Your task to perform on an android device: uninstall "Google Pay: Save, Pay, Manage" Image 0: 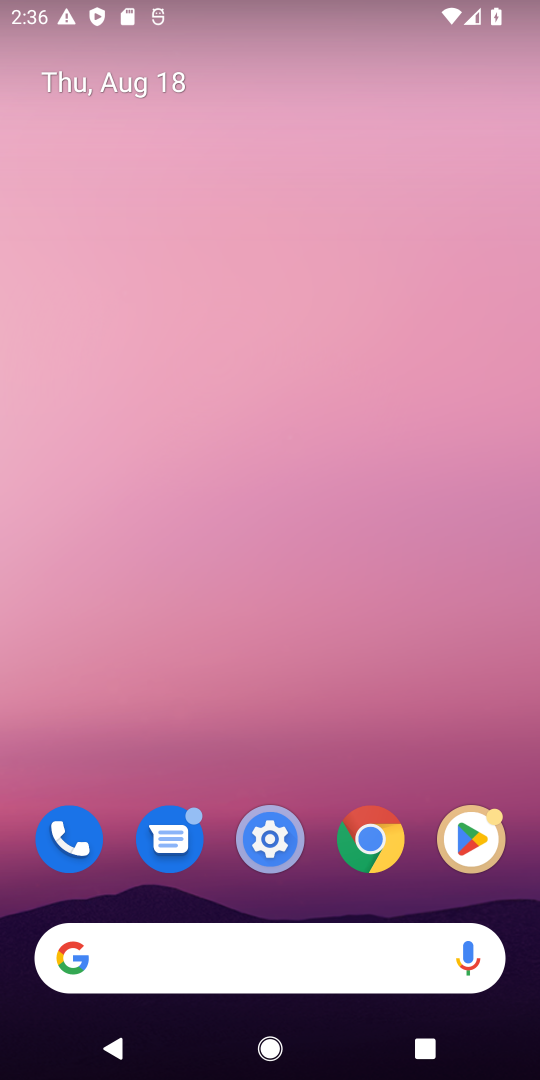
Step 0: click (452, 841)
Your task to perform on an android device: uninstall "Google Pay: Save, Pay, Manage" Image 1: 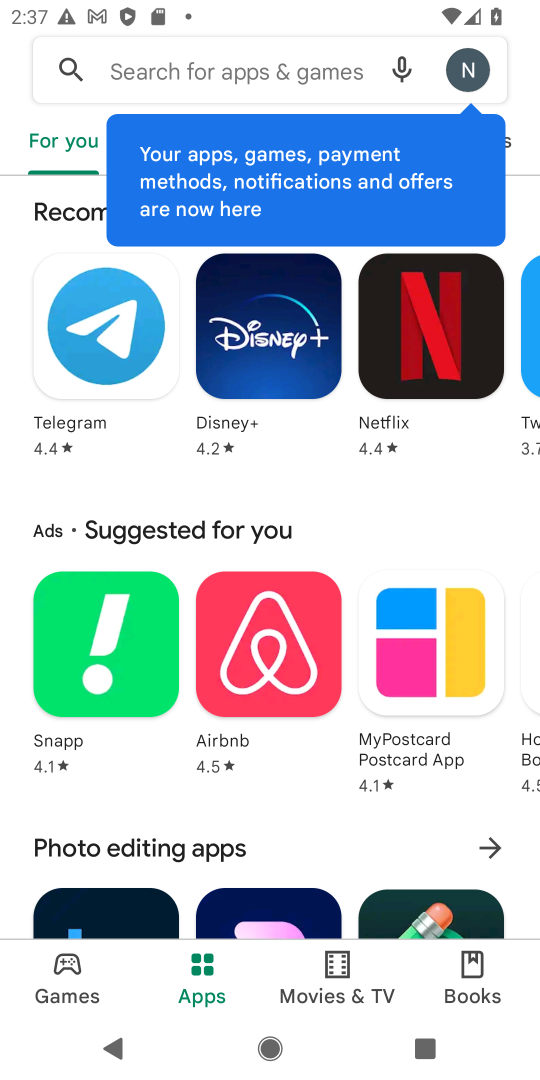
Step 1: click (218, 81)
Your task to perform on an android device: uninstall "Google Pay: Save, Pay, Manage" Image 2: 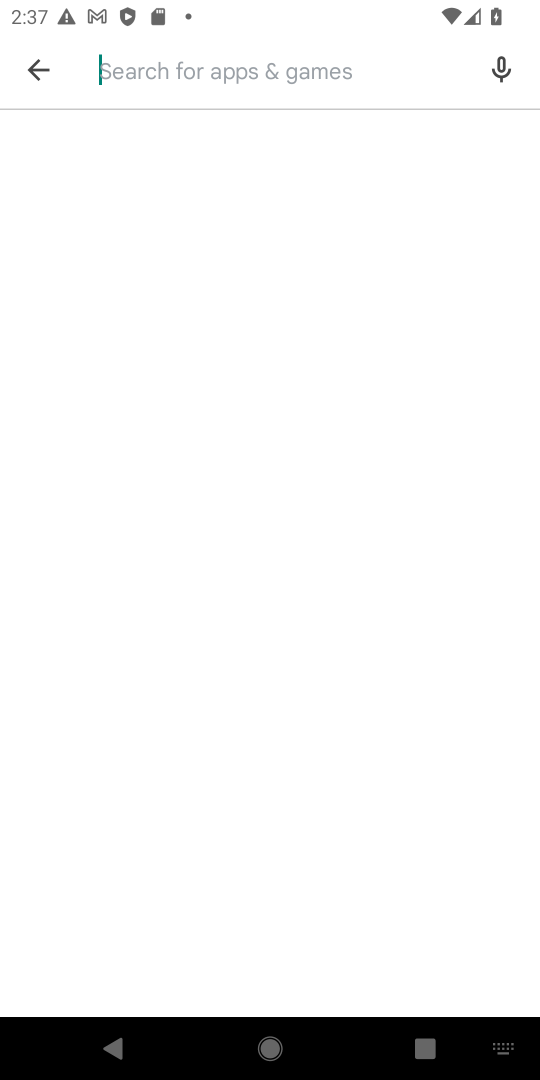
Step 2: type "Google Pay: Save, Pay, Manage"
Your task to perform on an android device: uninstall "Google Pay: Save, Pay, Manage" Image 3: 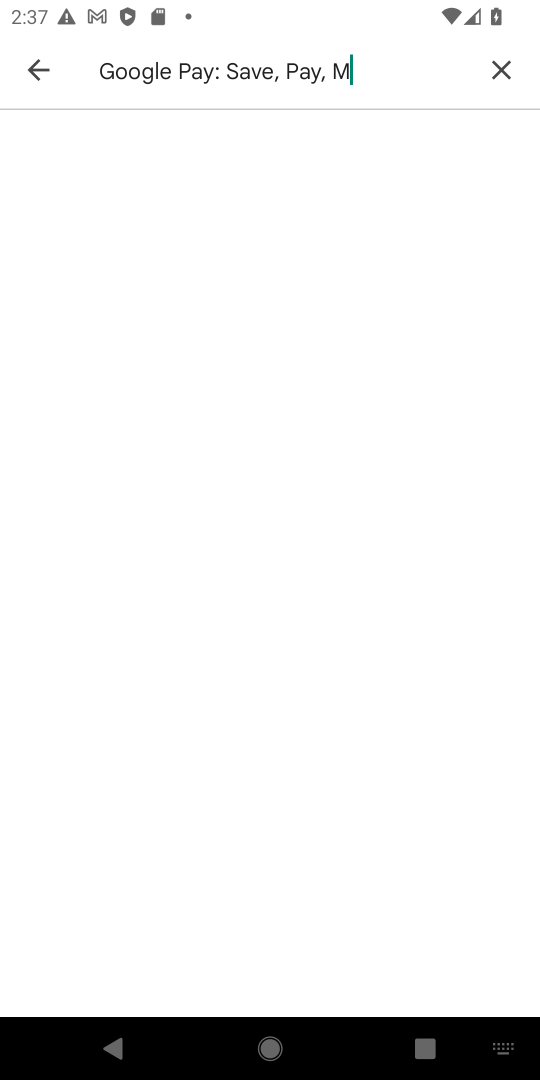
Step 3: type ""
Your task to perform on an android device: uninstall "Google Pay: Save, Pay, Manage" Image 4: 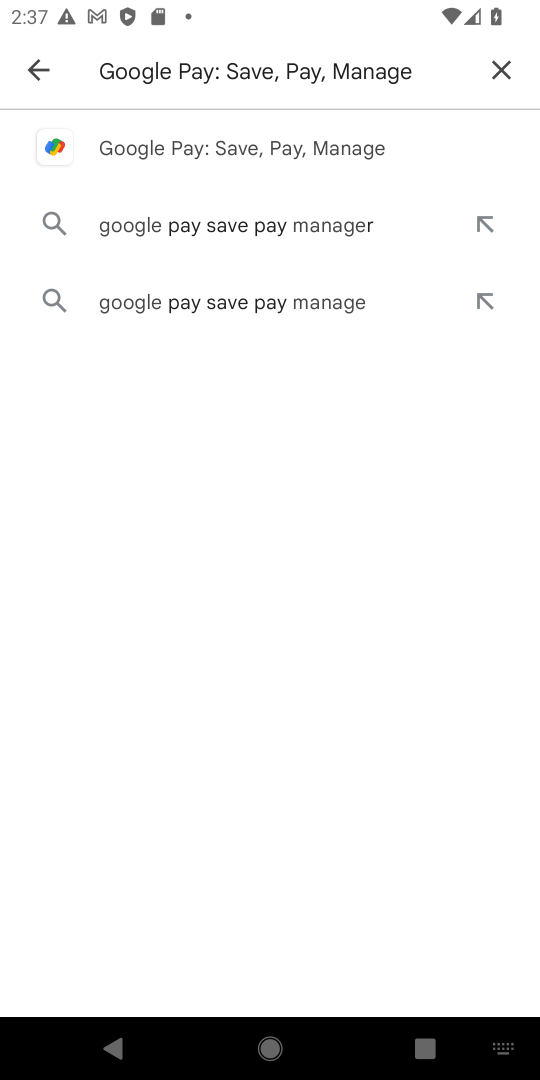
Step 4: click (132, 149)
Your task to perform on an android device: uninstall "Google Pay: Save, Pay, Manage" Image 5: 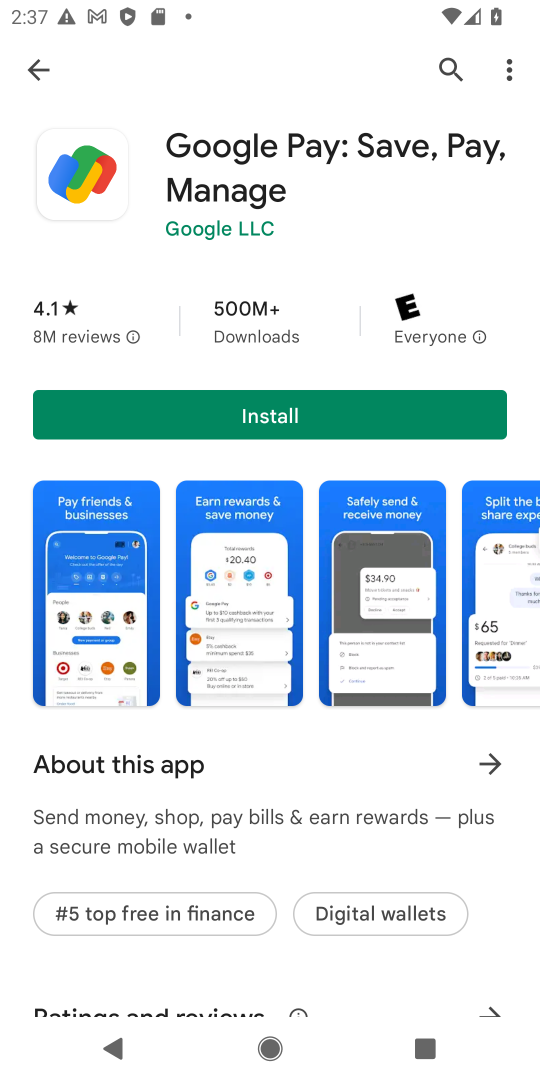
Step 5: task complete